Your task to perform on an android device: Go to network settings Image 0: 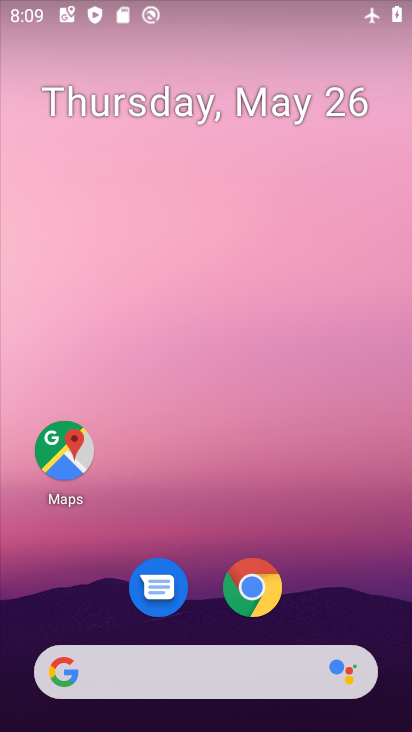
Step 0: drag from (203, 617) to (254, 244)
Your task to perform on an android device: Go to network settings Image 1: 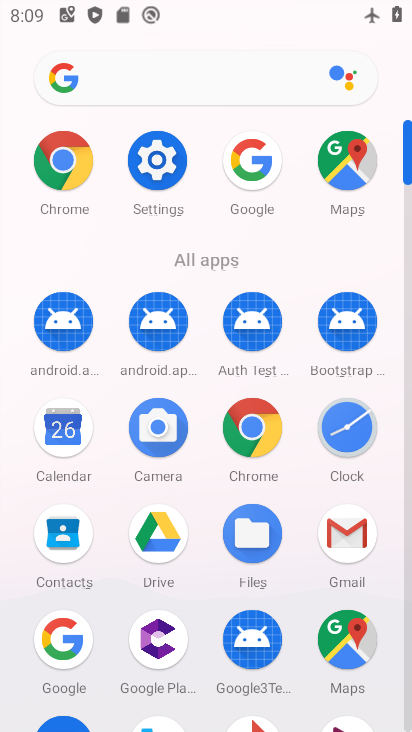
Step 1: click (165, 179)
Your task to perform on an android device: Go to network settings Image 2: 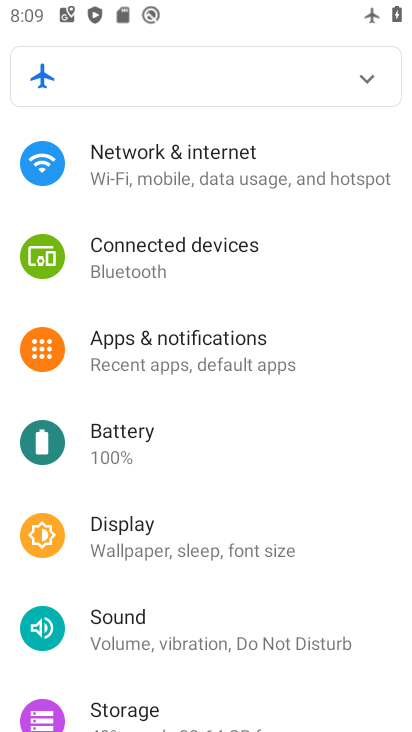
Step 2: click (165, 179)
Your task to perform on an android device: Go to network settings Image 3: 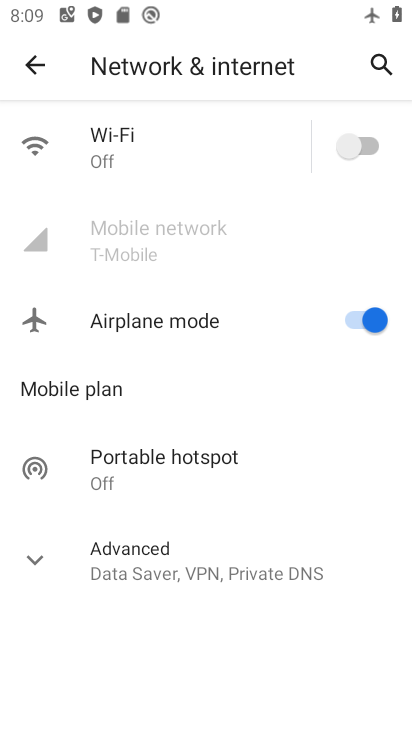
Step 3: click (208, 212)
Your task to perform on an android device: Go to network settings Image 4: 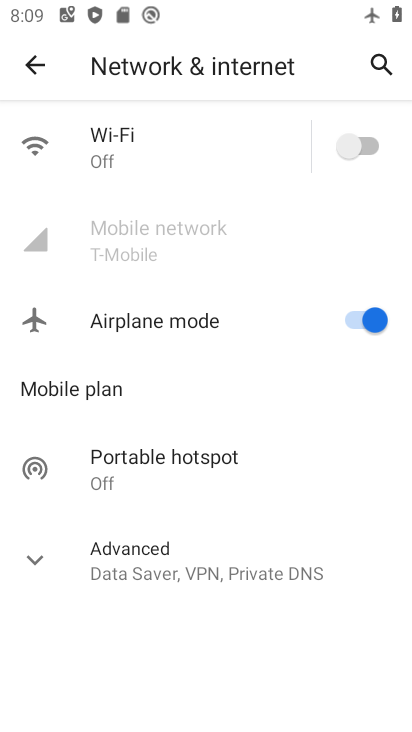
Step 4: task complete